Your task to perform on an android device: turn off wifi Image 0: 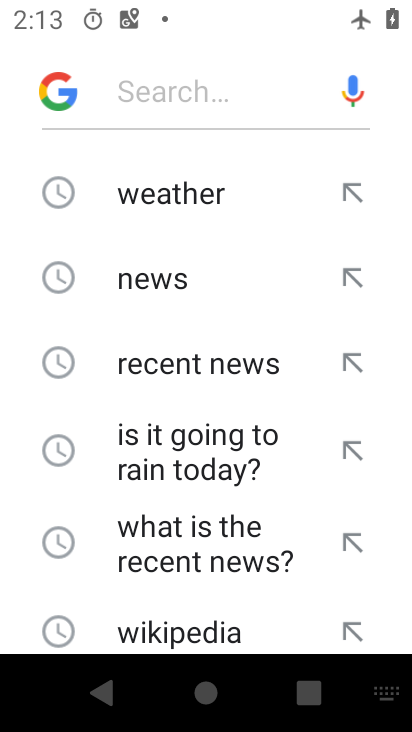
Step 0: press home button
Your task to perform on an android device: turn off wifi Image 1: 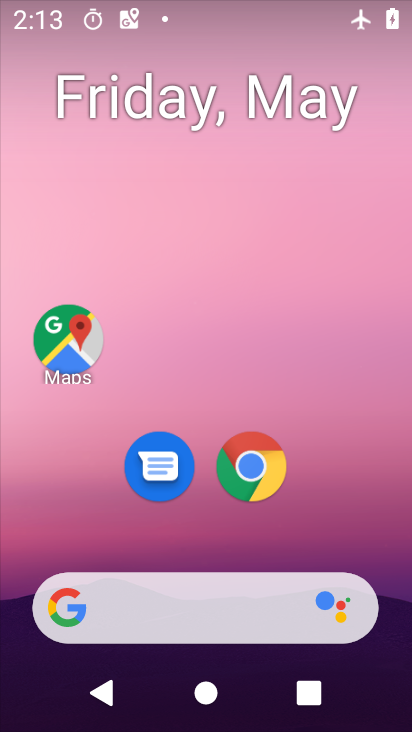
Step 1: drag from (317, 539) to (353, 42)
Your task to perform on an android device: turn off wifi Image 2: 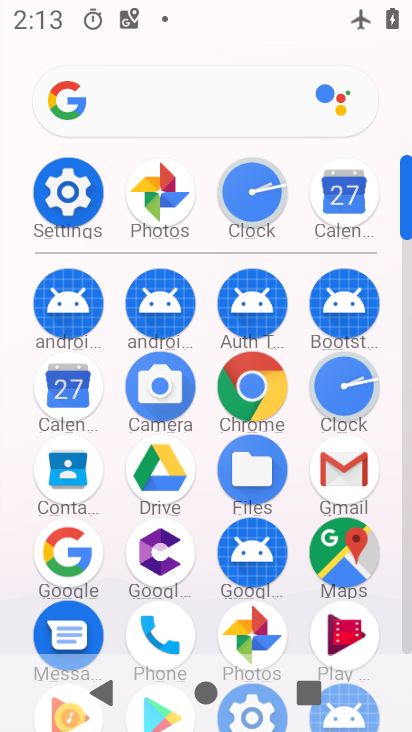
Step 2: click (42, 216)
Your task to perform on an android device: turn off wifi Image 3: 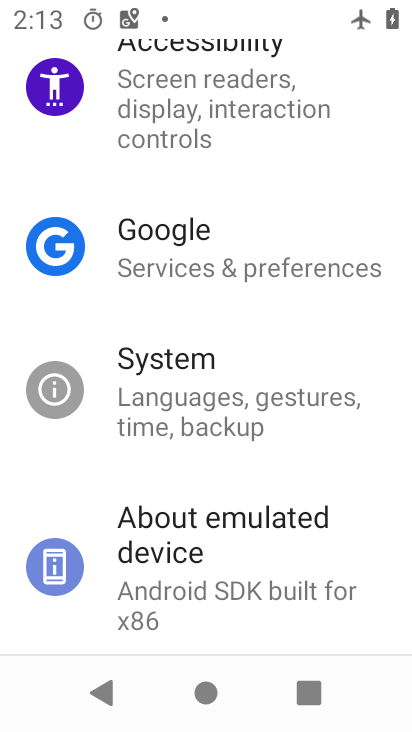
Step 3: drag from (218, 175) to (280, 650)
Your task to perform on an android device: turn off wifi Image 4: 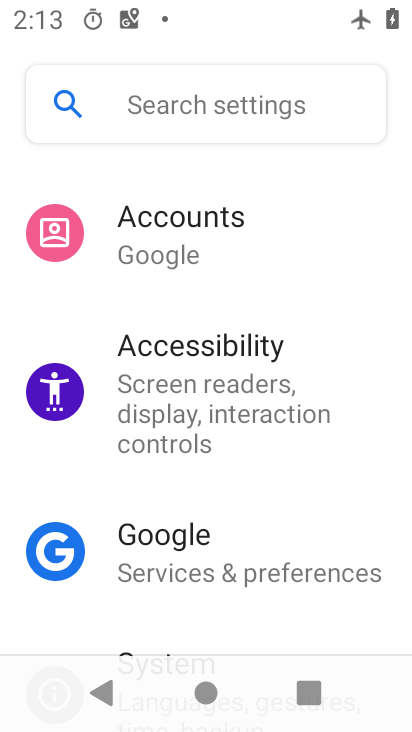
Step 4: drag from (342, 182) to (291, 695)
Your task to perform on an android device: turn off wifi Image 5: 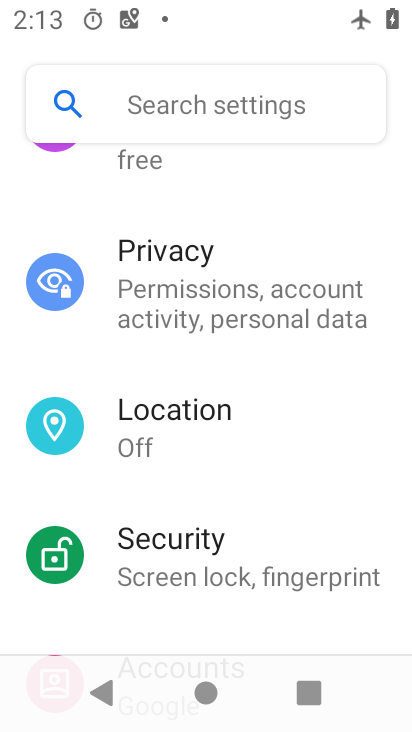
Step 5: drag from (293, 228) to (263, 647)
Your task to perform on an android device: turn off wifi Image 6: 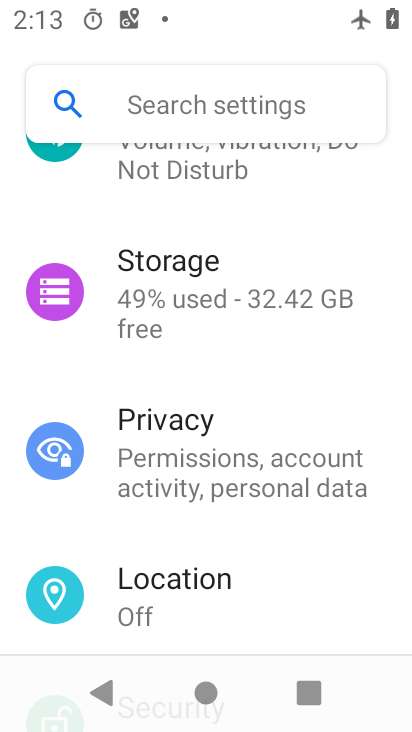
Step 6: drag from (354, 186) to (309, 686)
Your task to perform on an android device: turn off wifi Image 7: 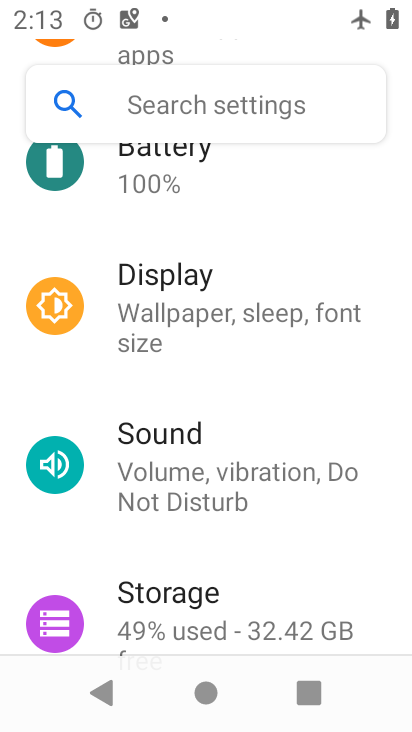
Step 7: drag from (362, 162) to (300, 726)
Your task to perform on an android device: turn off wifi Image 8: 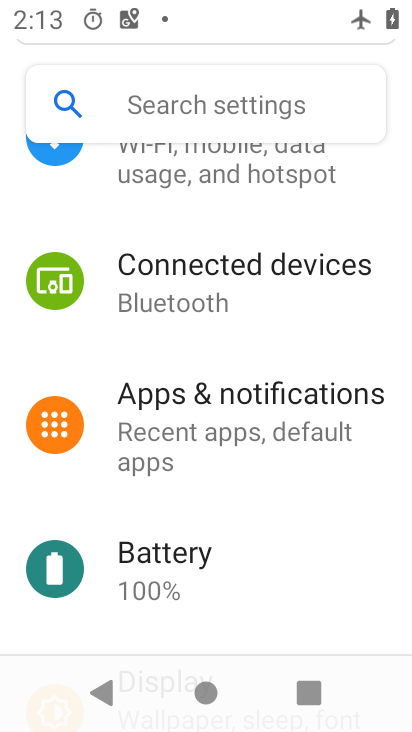
Step 8: drag from (336, 233) to (276, 663)
Your task to perform on an android device: turn off wifi Image 9: 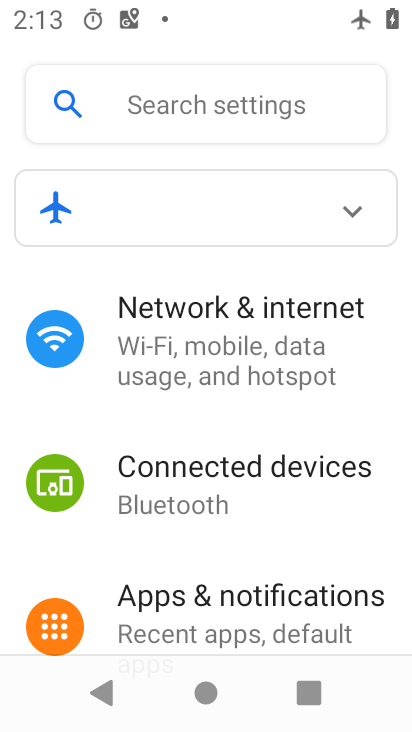
Step 9: click (310, 338)
Your task to perform on an android device: turn off wifi Image 10: 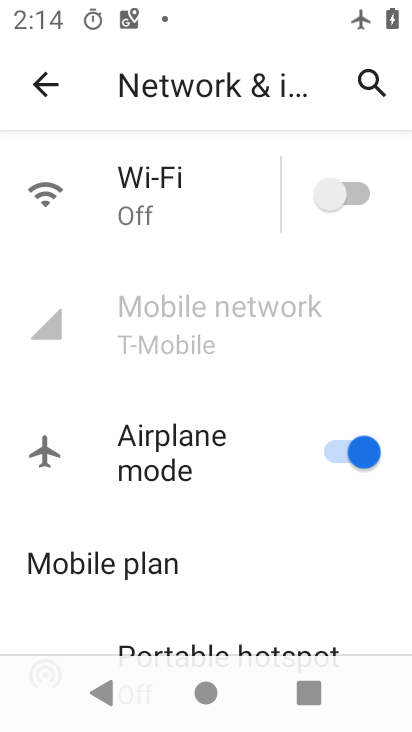
Step 10: task complete